Your task to perform on an android device: Open Google Image 0: 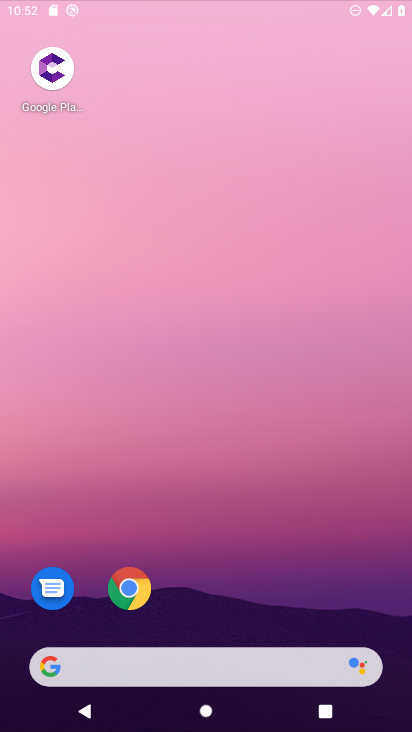
Step 0: drag from (267, 588) to (206, 137)
Your task to perform on an android device: Open Google Image 1: 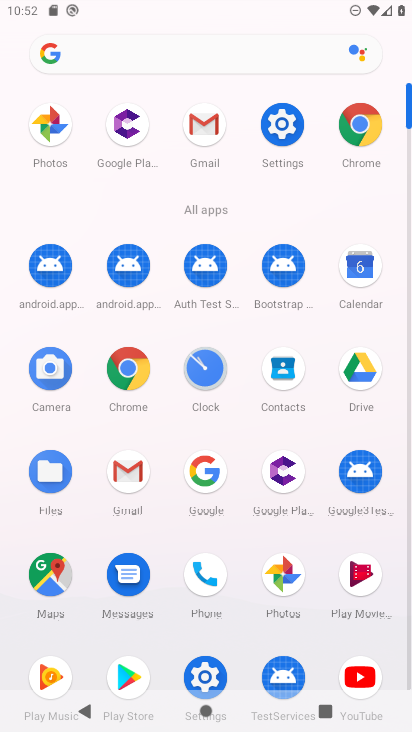
Step 1: click (367, 114)
Your task to perform on an android device: Open Google Image 2: 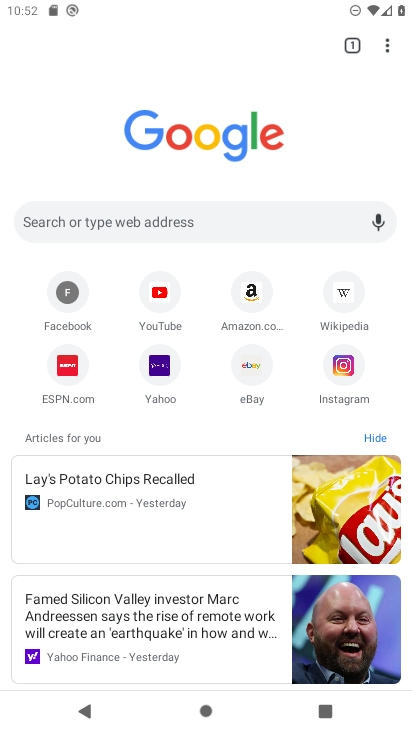
Step 2: task complete